Your task to perform on an android device: Do I have any events tomorrow? Image 0: 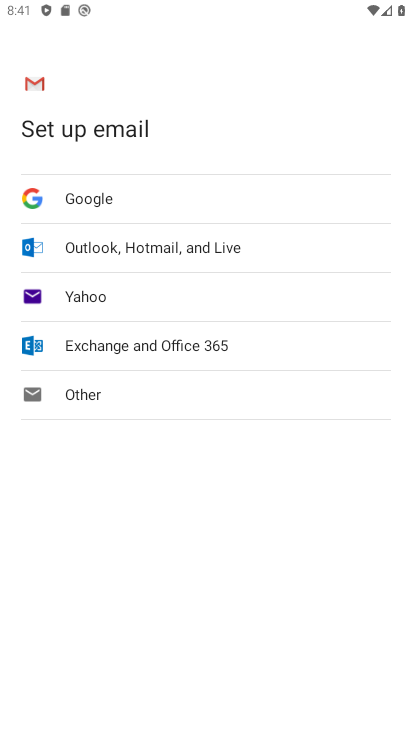
Step 0: press home button
Your task to perform on an android device: Do I have any events tomorrow? Image 1: 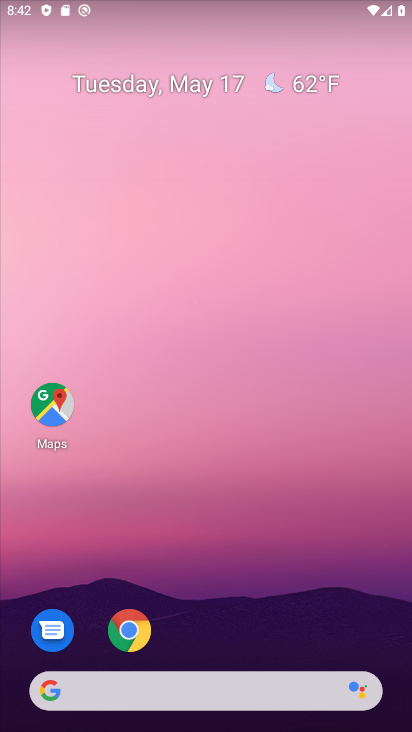
Step 1: drag from (243, 633) to (174, 158)
Your task to perform on an android device: Do I have any events tomorrow? Image 2: 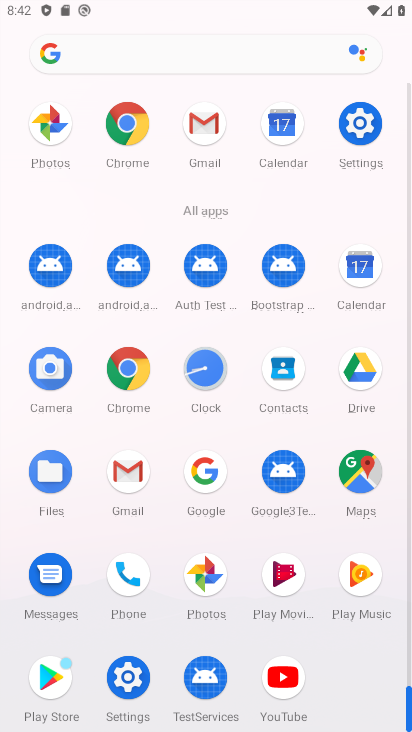
Step 2: click (354, 278)
Your task to perform on an android device: Do I have any events tomorrow? Image 3: 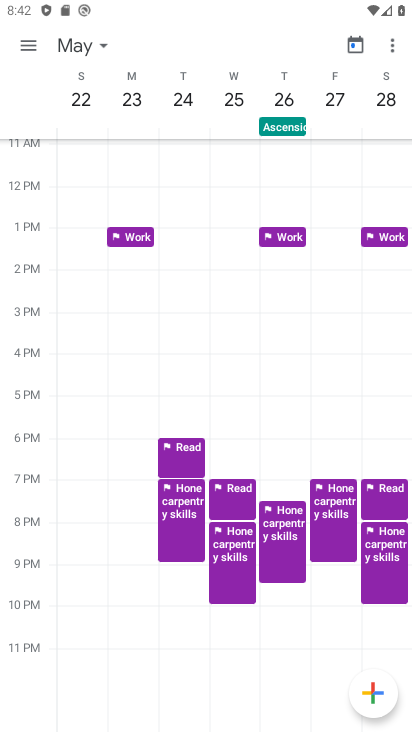
Step 3: click (79, 47)
Your task to perform on an android device: Do I have any events tomorrow? Image 4: 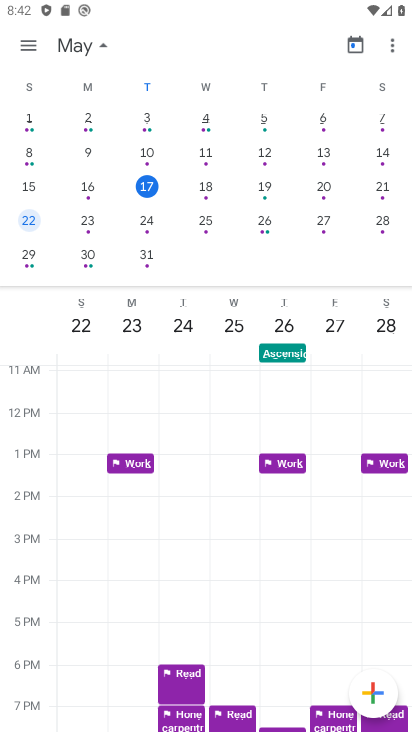
Step 4: click (28, 46)
Your task to perform on an android device: Do I have any events tomorrow? Image 5: 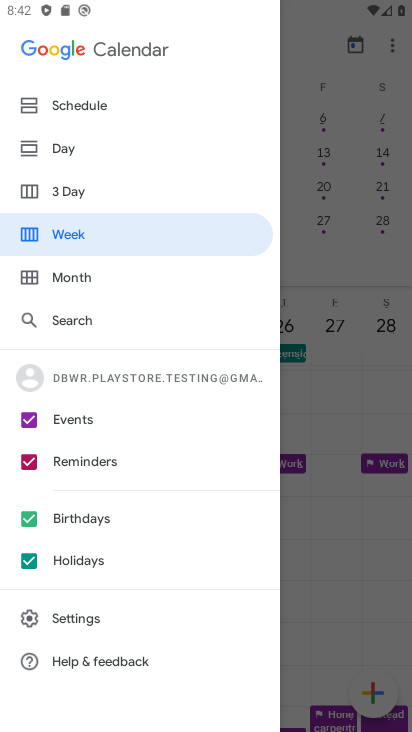
Step 5: click (85, 112)
Your task to perform on an android device: Do I have any events tomorrow? Image 6: 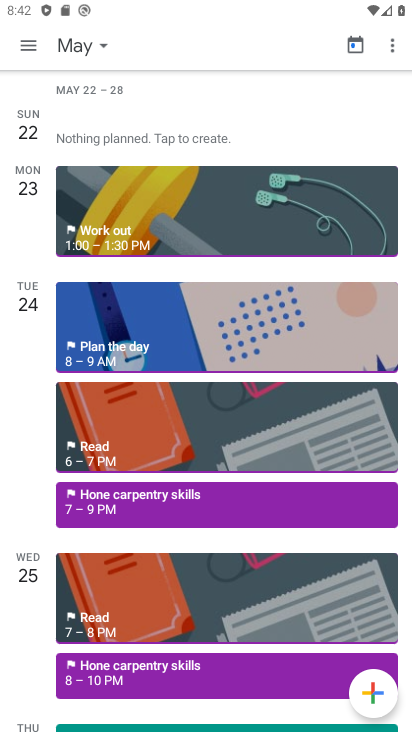
Step 6: click (66, 43)
Your task to perform on an android device: Do I have any events tomorrow? Image 7: 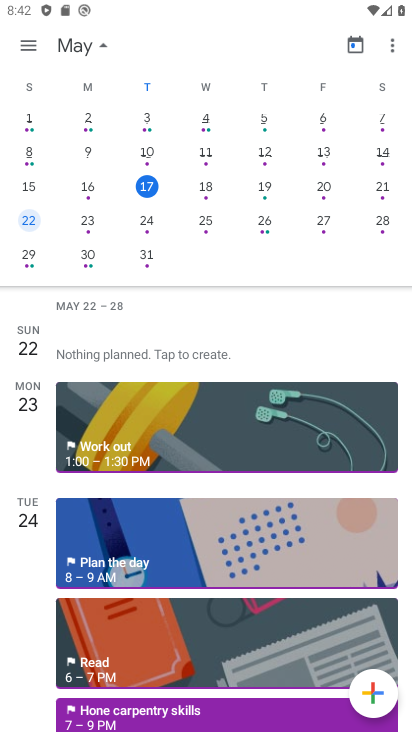
Step 7: click (209, 186)
Your task to perform on an android device: Do I have any events tomorrow? Image 8: 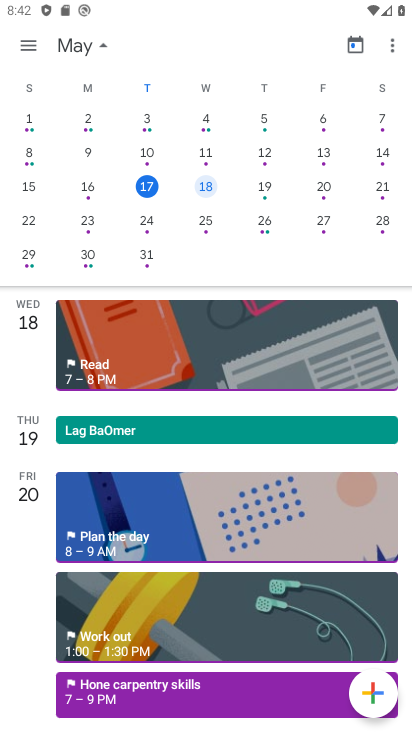
Step 8: click (209, 186)
Your task to perform on an android device: Do I have any events tomorrow? Image 9: 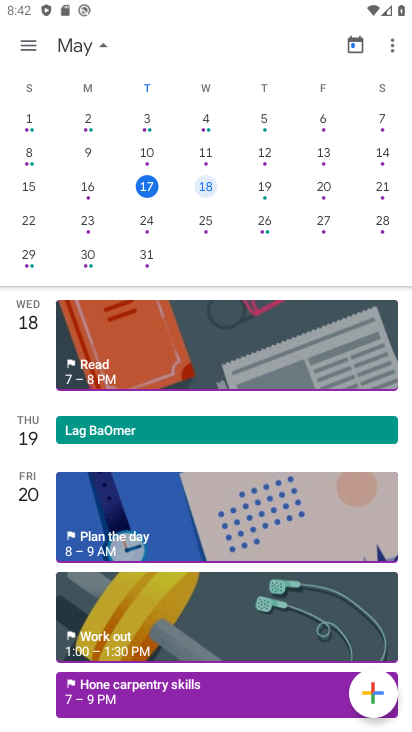
Step 9: task complete